Your task to perform on an android device: Go to Amazon Image 0: 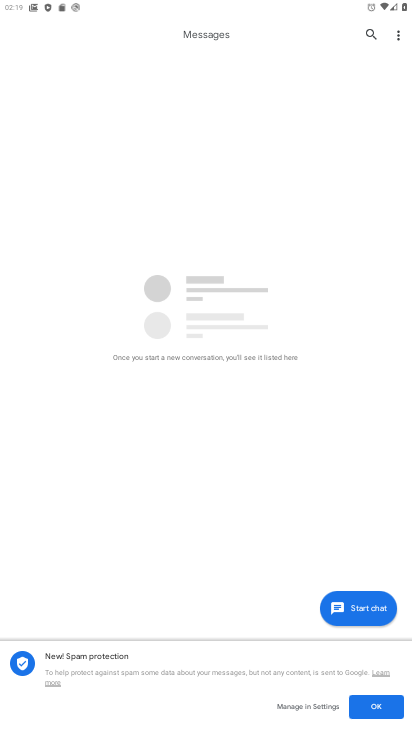
Step 0: press home button
Your task to perform on an android device: Go to Amazon Image 1: 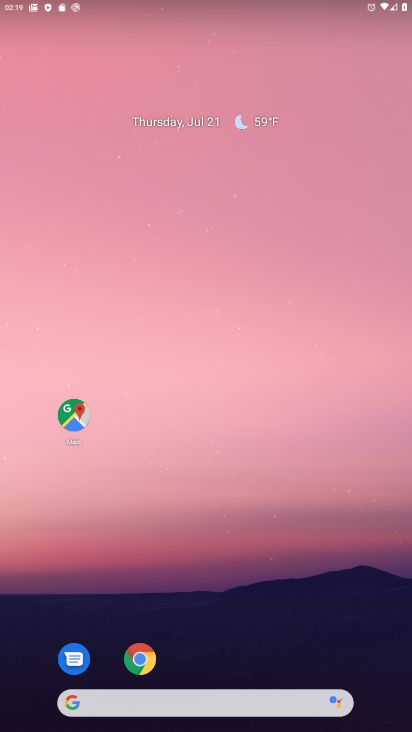
Step 1: drag from (352, 592) to (283, 160)
Your task to perform on an android device: Go to Amazon Image 2: 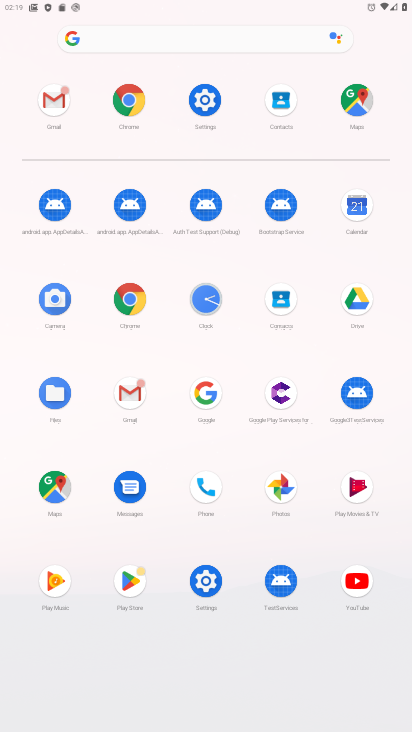
Step 2: click (132, 94)
Your task to perform on an android device: Go to Amazon Image 3: 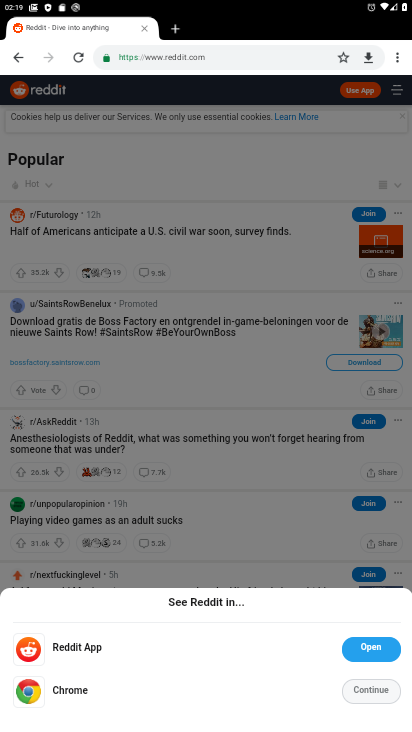
Step 3: click (182, 55)
Your task to perform on an android device: Go to Amazon Image 4: 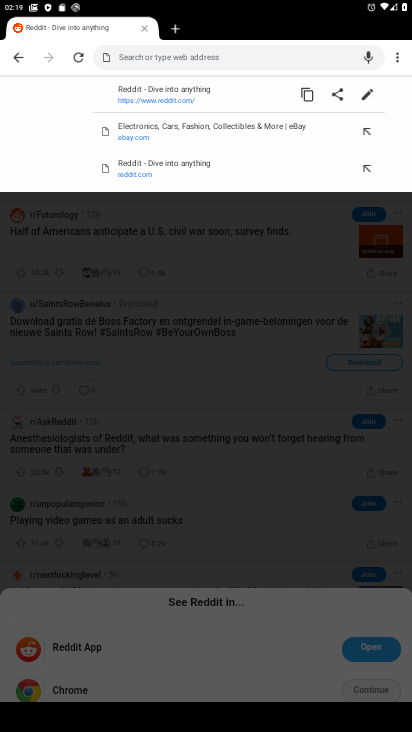
Step 4: type "amazon"
Your task to perform on an android device: Go to Amazon Image 5: 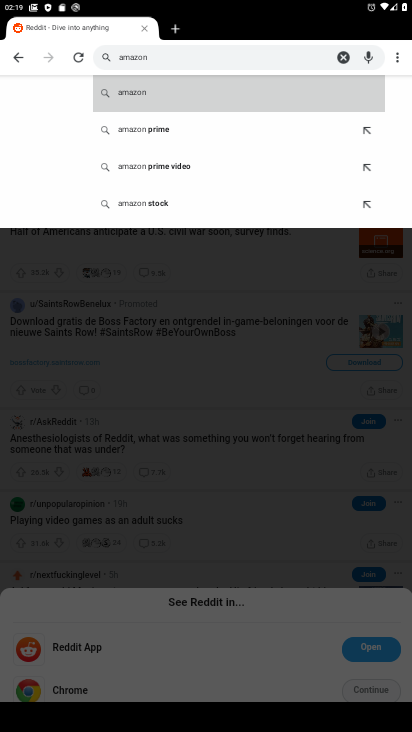
Step 5: click (136, 97)
Your task to perform on an android device: Go to Amazon Image 6: 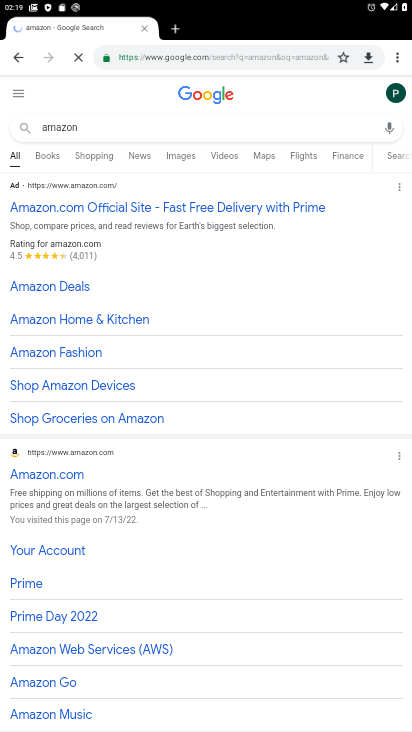
Step 6: click (56, 473)
Your task to perform on an android device: Go to Amazon Image 7: 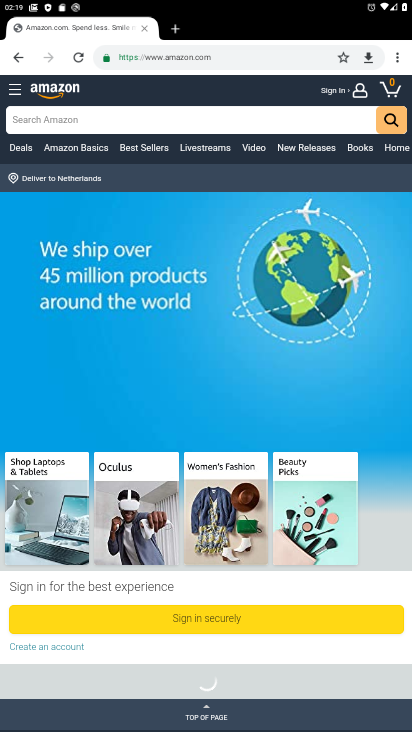
Step 7: task complete